Your task to perform on an android device: check storage Image 0: 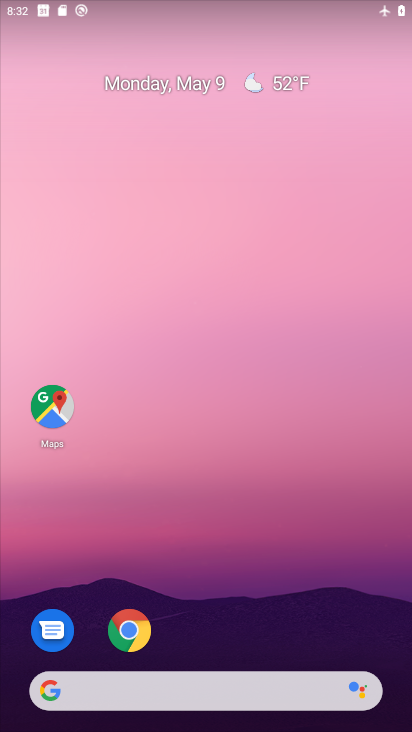
Step 0: drag from (195, 632) to (252, 140)
Your task to perform on an android device: check storage Image 1: 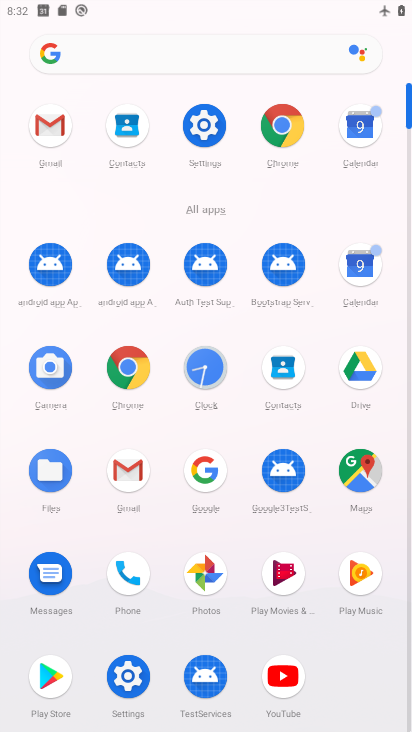
Step 1: click (131, 674)
Your task to perform on an android device: check storage Image 2: 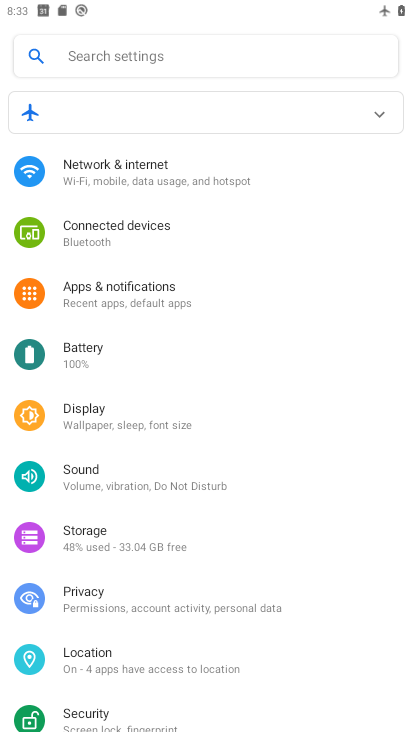
Step 2: click (102, 544)
Your task to perform on an android device: check storage Image 3: 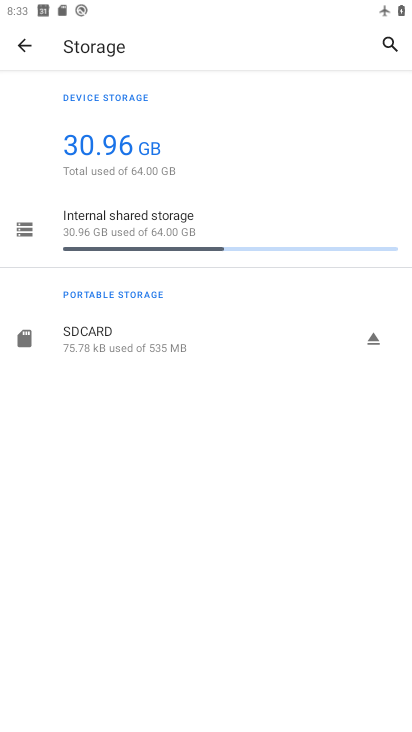
Step 3: click (143, 237)
Your task to perform on an android device: check storage Image 4: 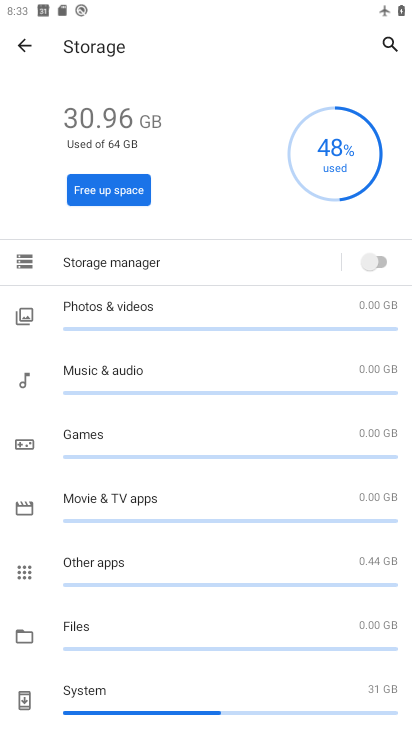
Step 4: task complete